Your task to perform on an android device: turn off airplane mode Image 0: 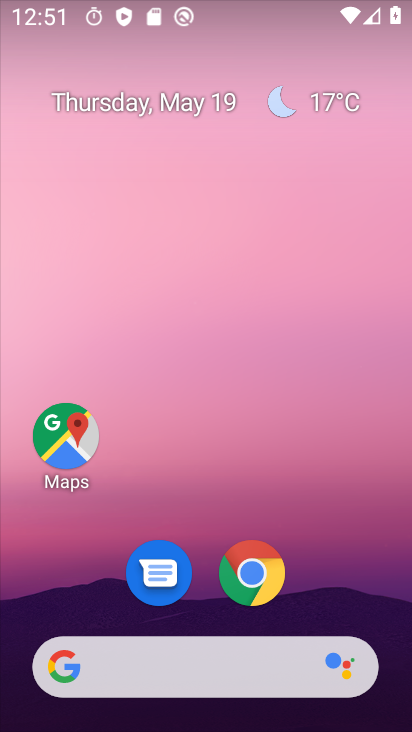
Step 0: drag from (274, 12) to (241, 625)
Your task to perform on an android device: turn off airplane mode Image 1: 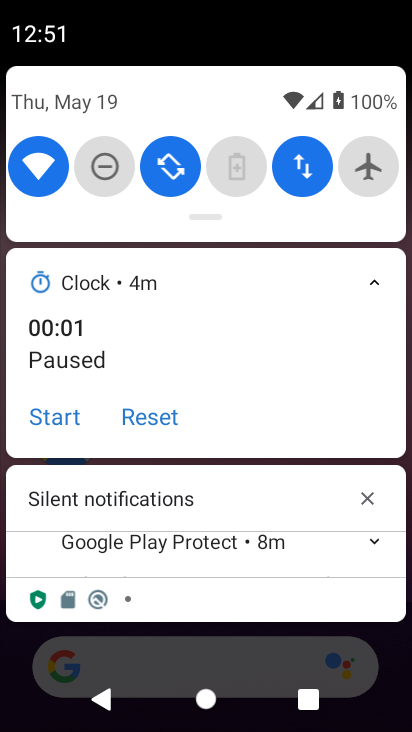
Step 1: task complete